Your task to perform on an android device: Open Wikipedia Image 0: 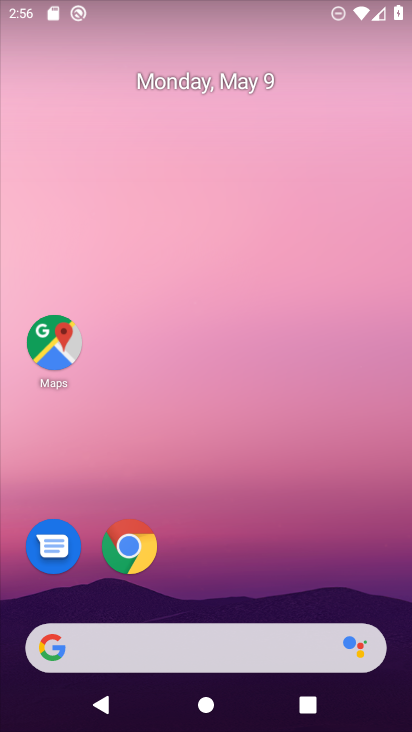
Step 0: click (174, 658)
Your task to perform on an android device: Open Wikipedia Image 1: 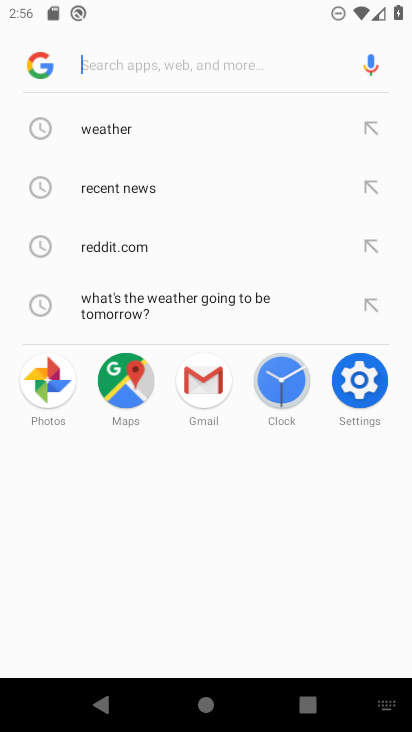
Step 1: type "wiki"
Your task to perform on an android device: Open Wikipedia Image 2: 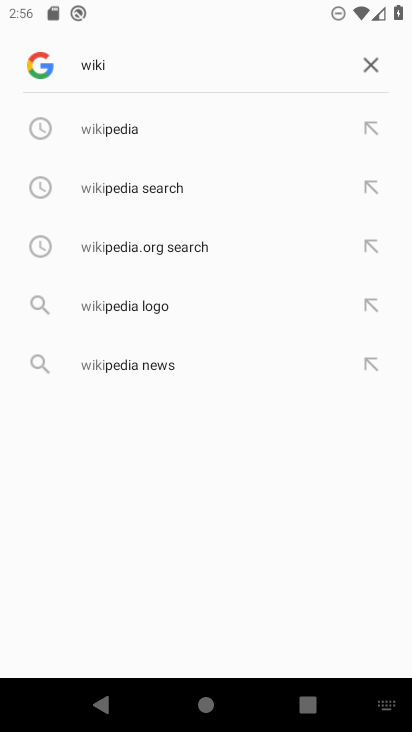
Step 2: click (140, 133)
Your task to perform on an android device: Open Wikipedia Image 3: 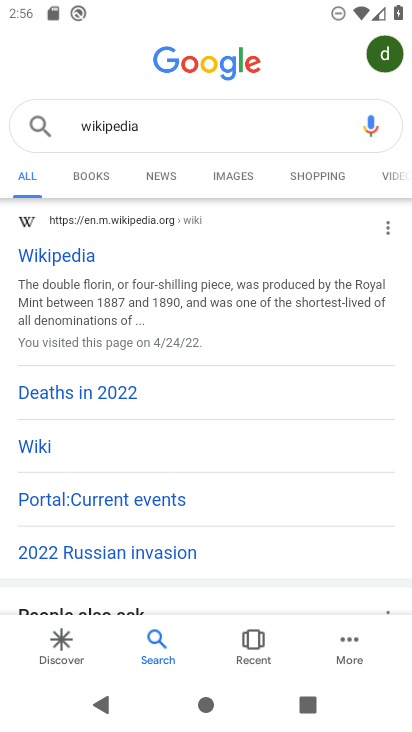
Step 3: click (49, 253)
Your task to perform on an android device: Open Wikipedia Image 4: 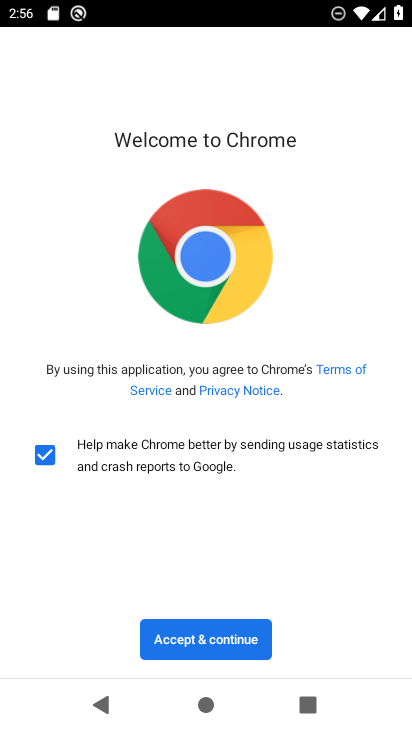
Step 4: click (220, 625)
Your task to perform on an android device: Open Wikipedia Image 5: 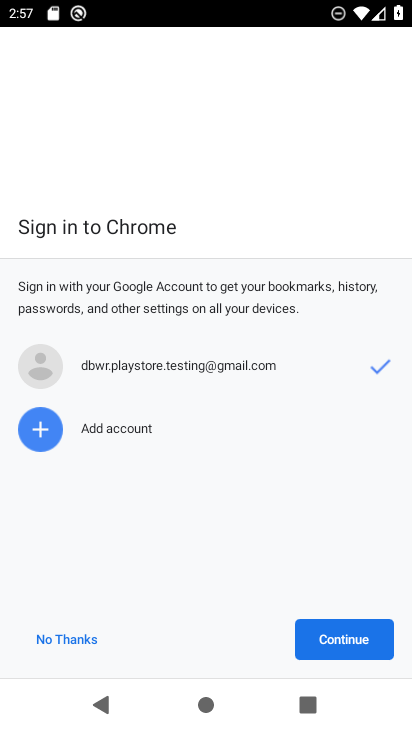
Step 5: click (315, 650)
Your task to perform on an android device: Open Wikipedia Image 6: 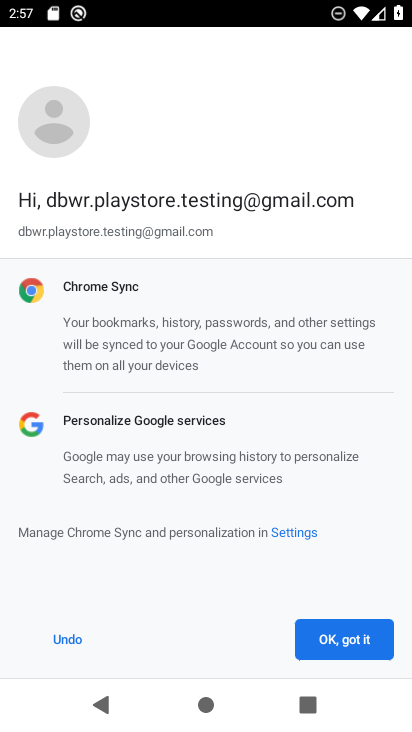
Step 6: click (328, 634)
Your task to perform on an android device: Open Wikipedia Image 7: 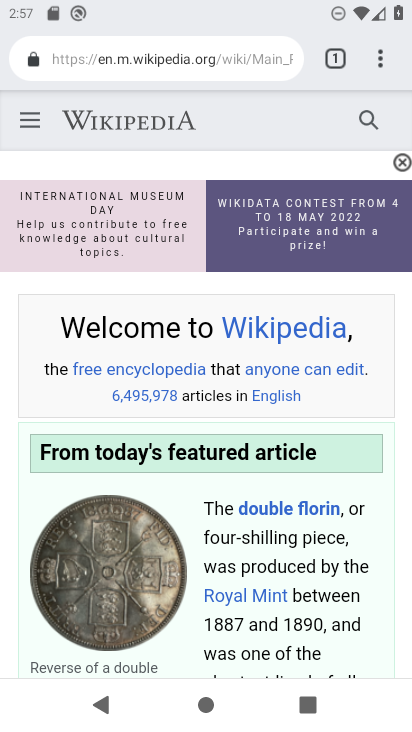
Step 7: task complete